Your task to perform on an android device: turn off notifications in google photos Image 0: 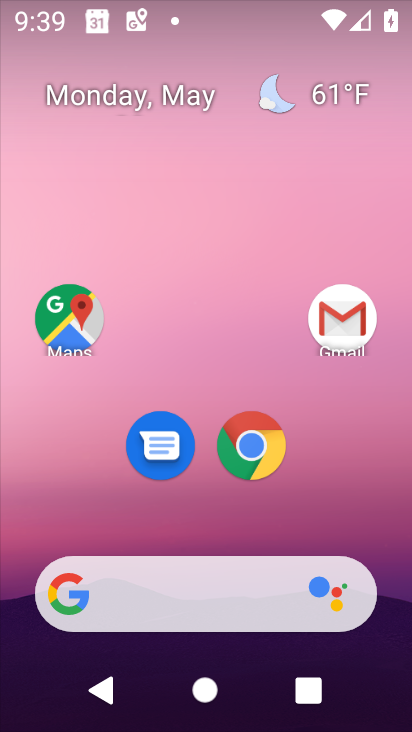
Step 0: drag from (344, 524) to (334, 192)
Your task to perform on an android device: turn off notifications in google photos Image 1: 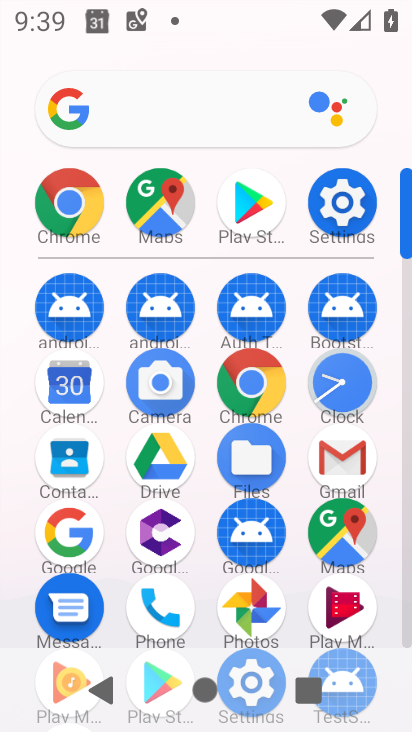
Step 1: click (262, 608)
Your task to perform on an android device: turn off notifications in google photos Image 2: 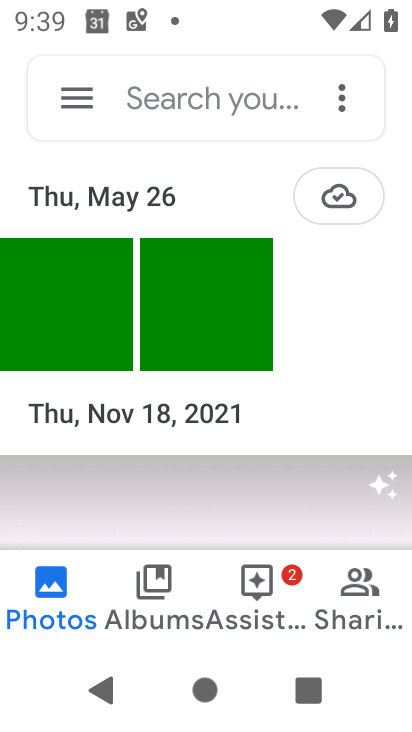
Step 2: click (75, 85)
Your task to perform on an android device: turn off notifications in google photos Image 3: 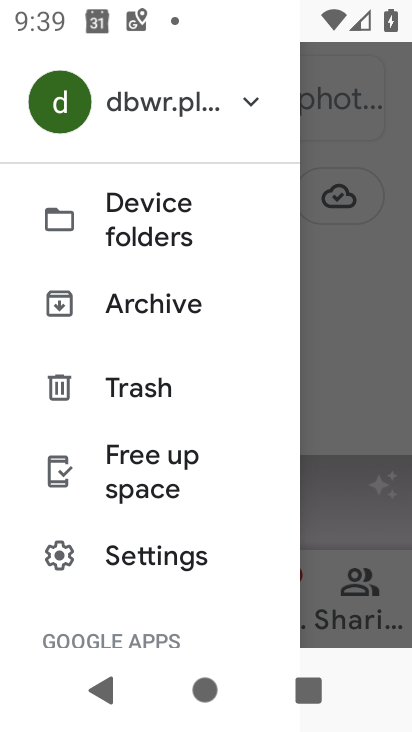
Step 3: drag from (211, 448) to (239, 239)
Your task to perform on an android device: turn off notifications in google photos Image 4: 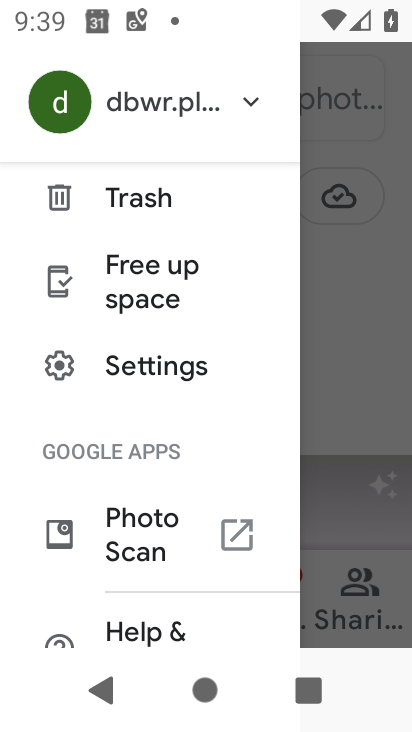
Step 4: drag from (256, 446) to (244, 285)
Your task to perform on an android device: turn off notifications in google photos Image 5: 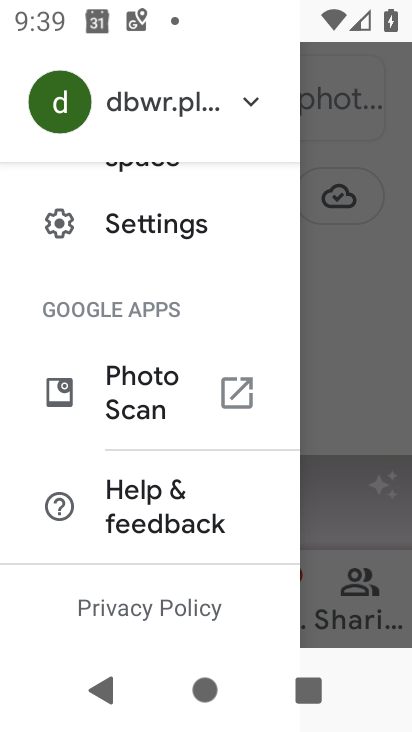
Step 5: click (192, 219)
Your task to perform on an android device: turn off notifications in google photos Image 6: 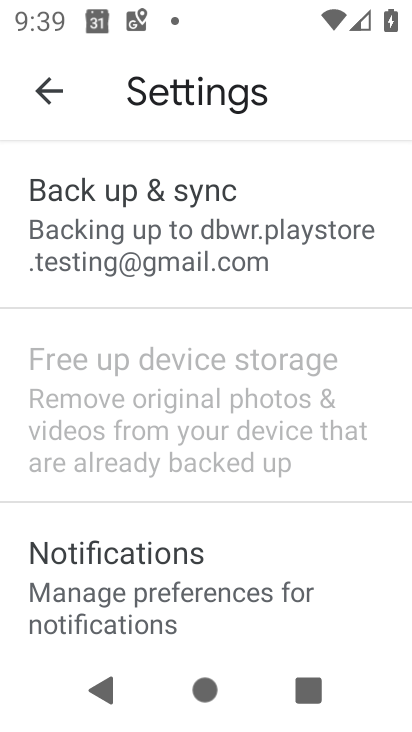
Step 6: drag from (297, 492) to (298, 273)
Your task to perform on an android device: turn off notifications in google photos Image 7: 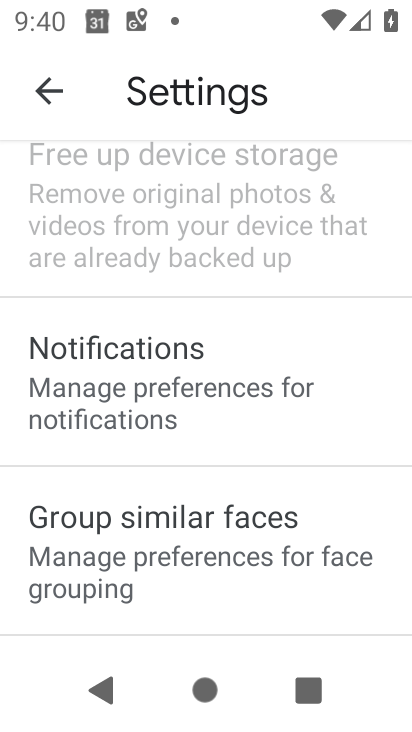
Step 7: click (278, 388)
Your task to perform on an android device: turn off notifications in google photos Image 8: 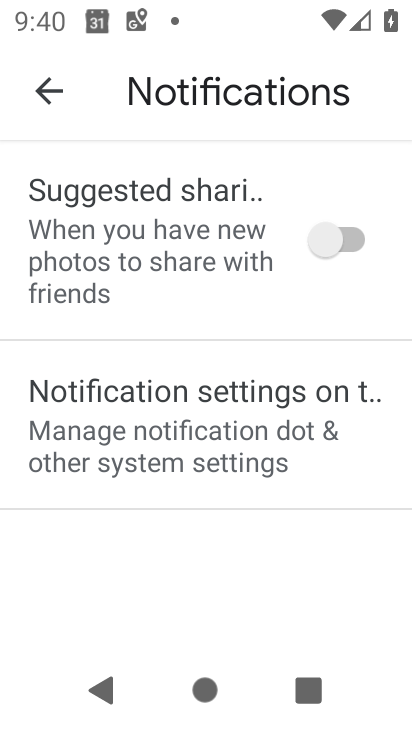
Step 8: click (264, 416)
Your task to perform on an android device: turn off notifications in google photos Image 9: 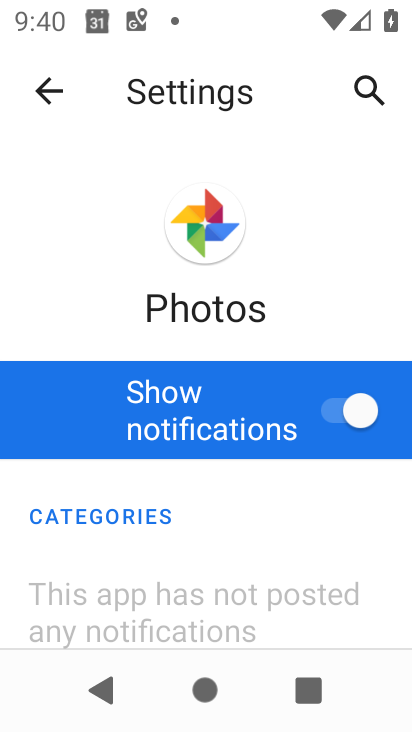
Step 9: click (366, 435)
Your task to perform on an android device: turn off notifications in google photos Image 10: 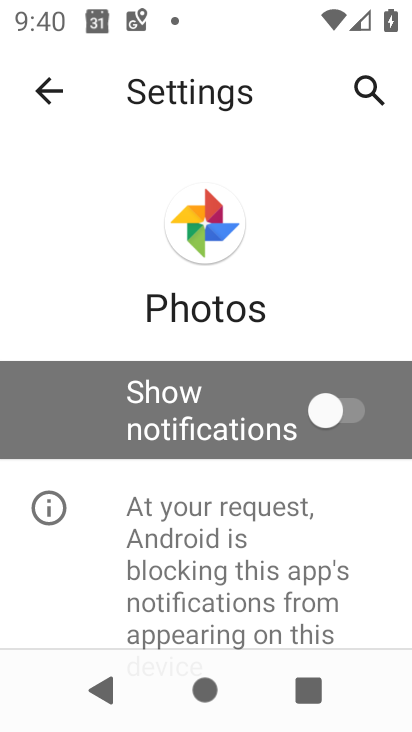
Step 10: task complete